Your task to perform on an android device: see sites visited before in the chrome app Image 0: 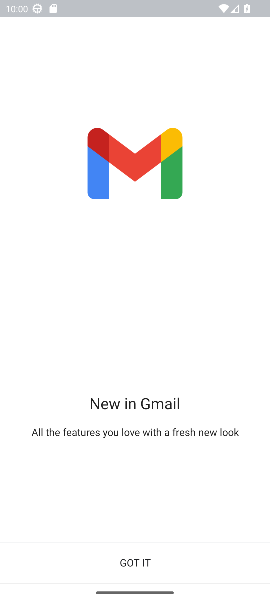
Step 0: press home button
Your task to perform on an android device: see sites visited before in the chrome app Image 1: 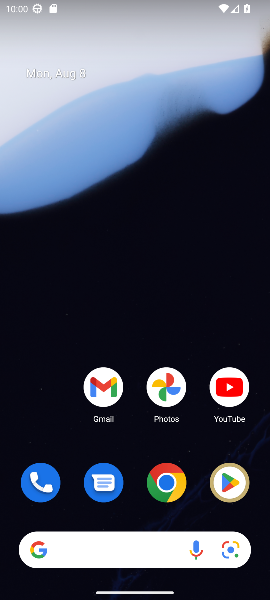
Step 1: click (156, 487)
Your task to perform on an android device: see sites visited before in the chrome app Image 2: 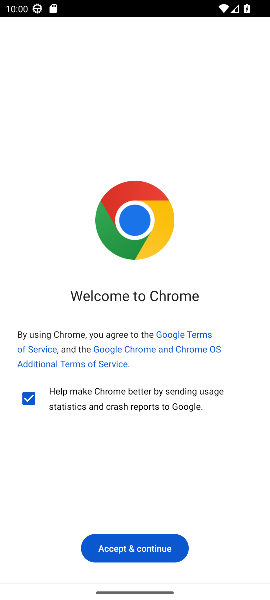
Step 2: click (147, 543)
Your task to perform on an android device: see sites visited before in the chrome app Image 3: 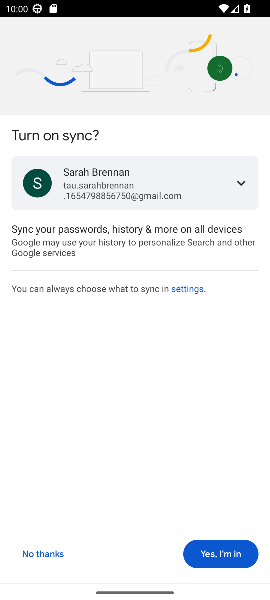
Step 3: click (212, 559)
Your task to perform on an android device: see sites visited before in the chrome app Image 4: 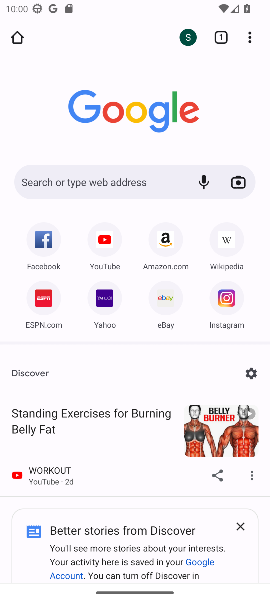
Step 4: click (251, 43)
Your task to perform on an android device: see sites visited before in the chrome app Image 5: 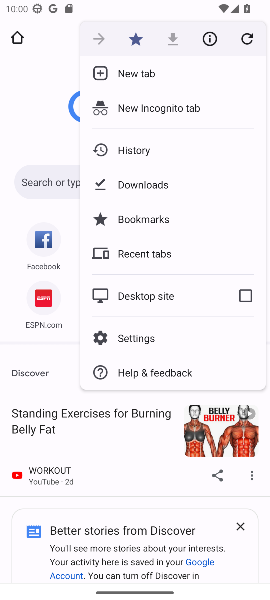
Step 5: click (136, 151)
Your task to perform on an android device: see sites visited before in the chrome app Image 6: 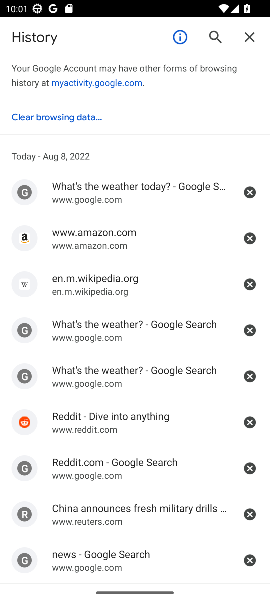
Step 6: task complete